Your task to perform on an android device: toggle show notifications on the lock screen Image 0: 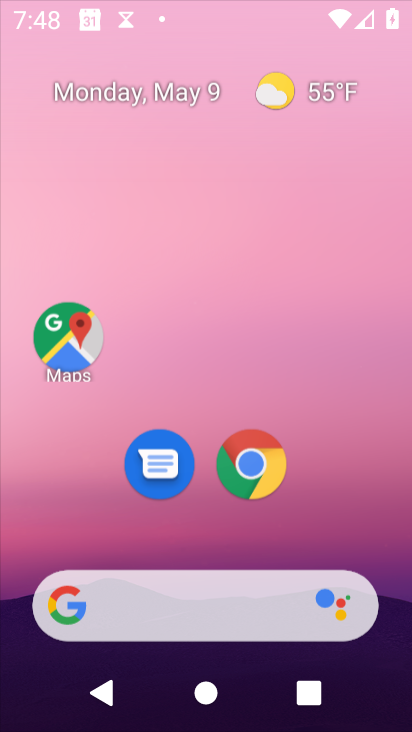
Step 0: click (177, 63)
Your task to perform on an android device: toggle show notifications on the lock screen Image 1: 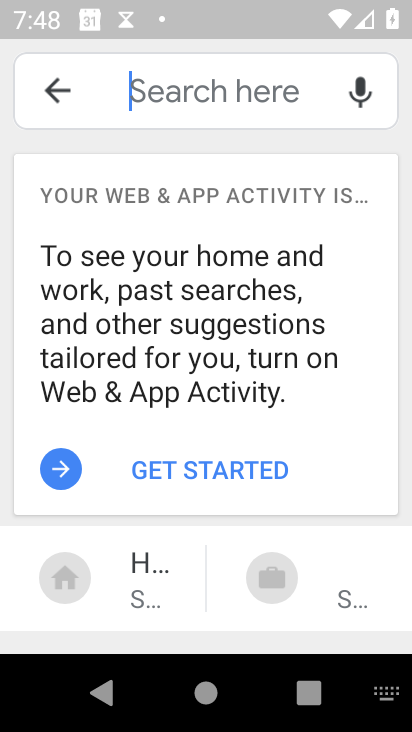
Step 1: click (48, 93)
Your task to perform on an android device: toggle show notifications on the lock screen Image 2: 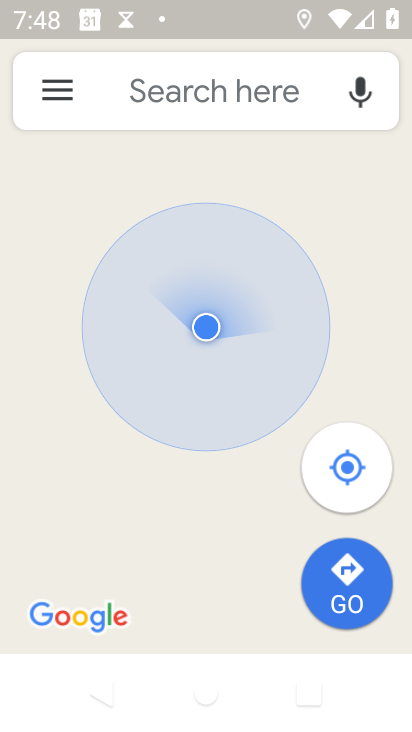
Step 2: press home button
Your task to perform on an android device: toggle show notifications on the lock screen Image 3: 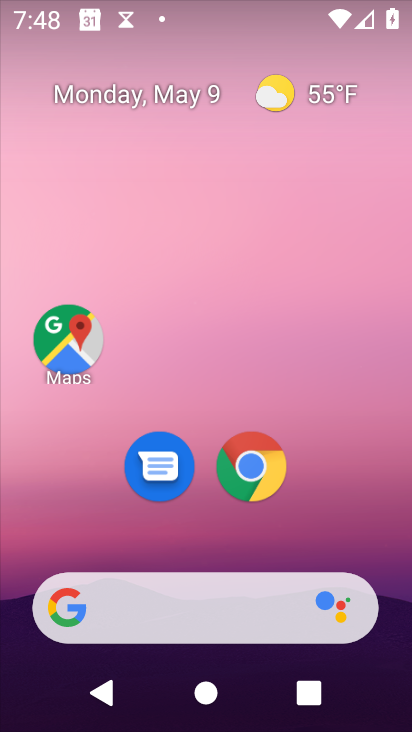
Step 3: drag from (367, 565) to (171, 6)
Your task to perform on an android device: toggle show notifications on the lock screen Image 4: 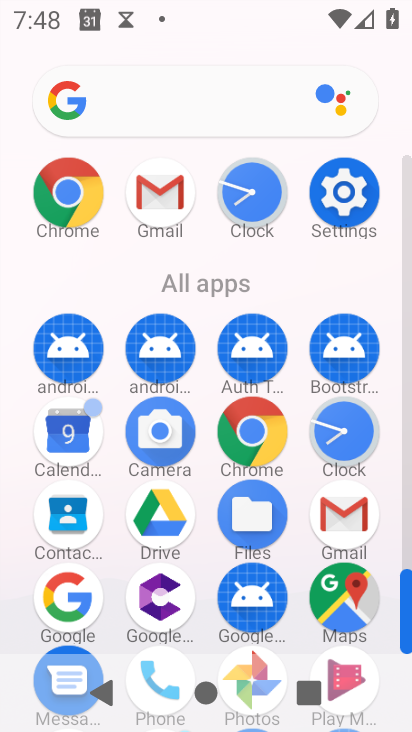
Step 4: click (334, 195)
Your task to perform on an android device: toggle show notifications on the lock screen Image 5: 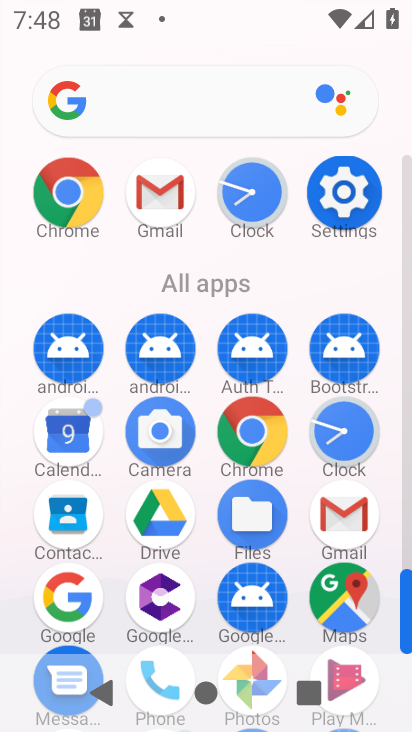
Step 5: click (334, 195)
Your task to perform on an android device: toggle show notifications on the lock screen Image 6: 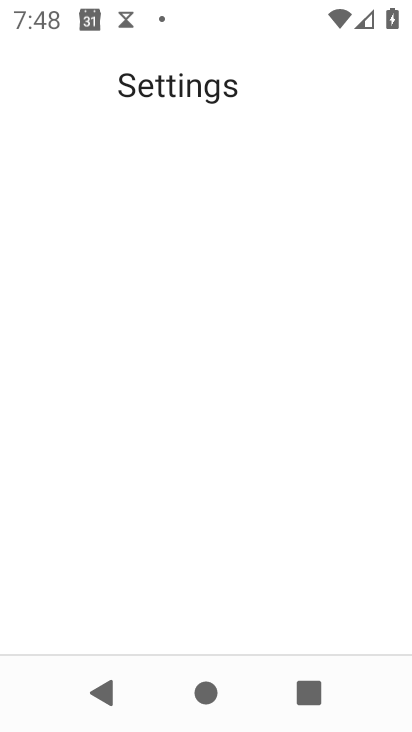
Step 6: click (335, 195)
Your task to perform on an android device: toggle show notifications on the lock screen Image 7: 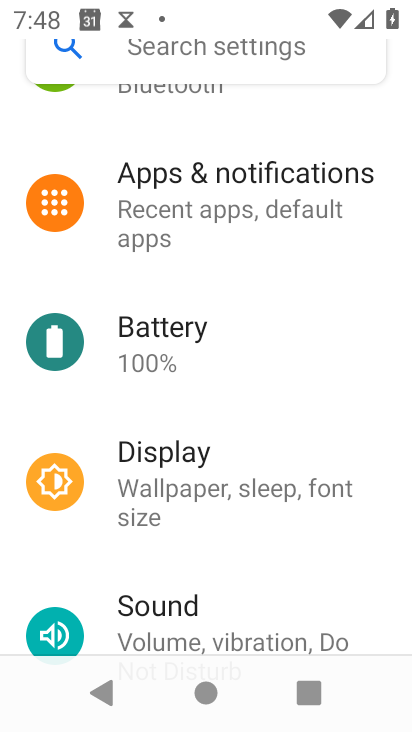
Step 7: click (188, 204)
Your task to perform on an android device: toggle show notifications on the lock screen Image 8: 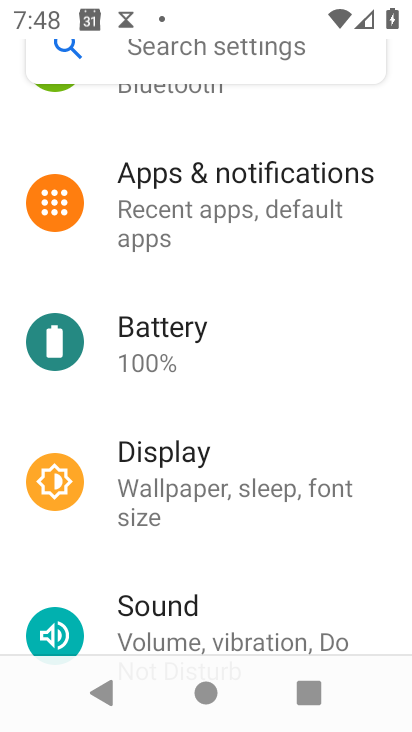
Step 8: click (188, 204)
Your task to perform on an android device: toggle show notifications on the lock screen Image 9: 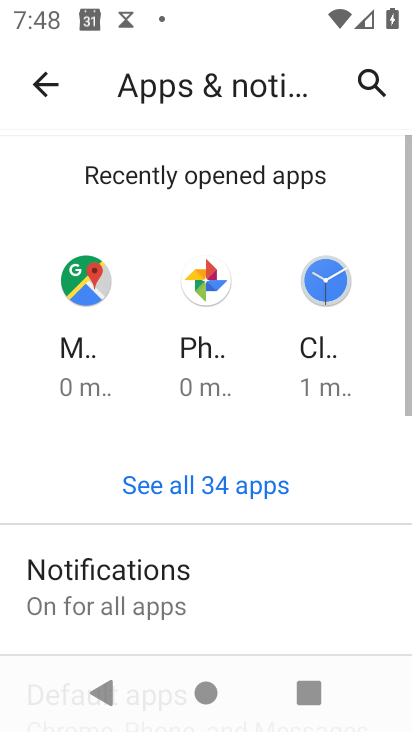
Step 9: click (112, 568)
Your task to perform on an android device: toggle show notifications on the lock screen Image 10: 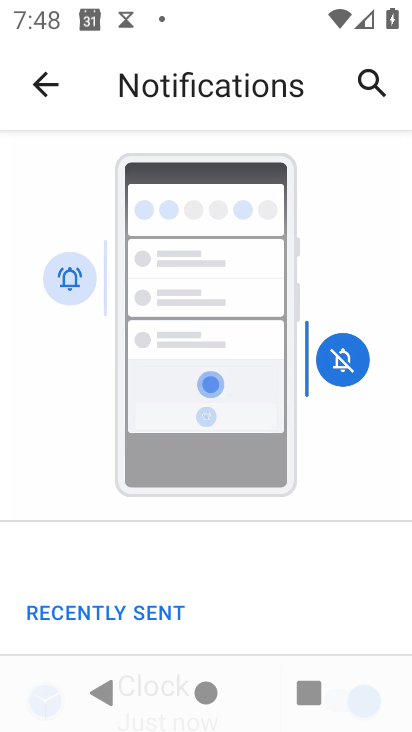
Step 10: drag from (238, 606) to (181, 94)
Your task to perform on an android device: toggle show notifications on the lock screen Image 11: 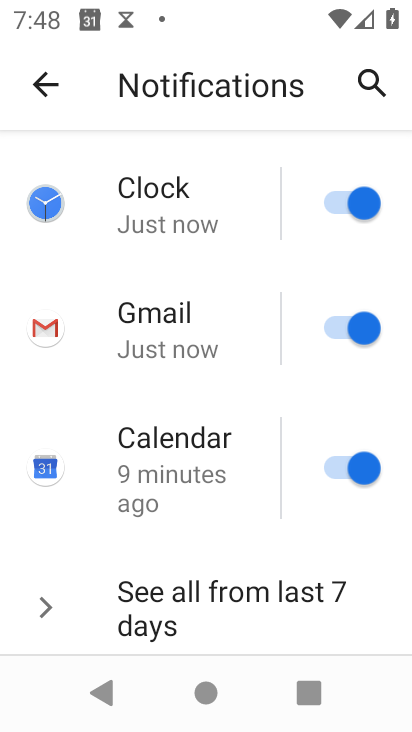
Step 11: drag from (172, 509) to (124, 114)
Your task to perform on an android device: toggle show notifications on the lock screen Image 12: 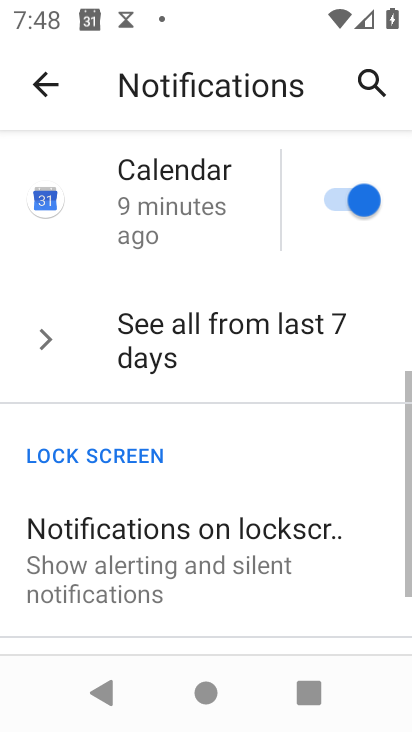
Step 12: drag from (198, 412) to (149, 107)
Your task to perform on an android device: toggle show notifications on the lock screen Image 13: 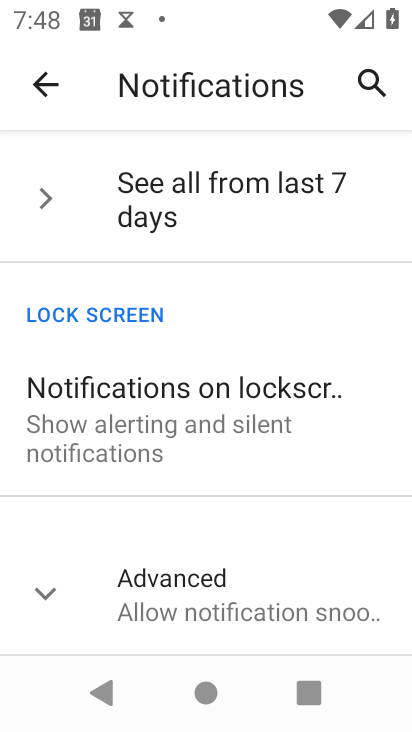
Step 13: click (170, 422)
Your task to perform on an android device: toggle show notifications on the lock screen Image 14: 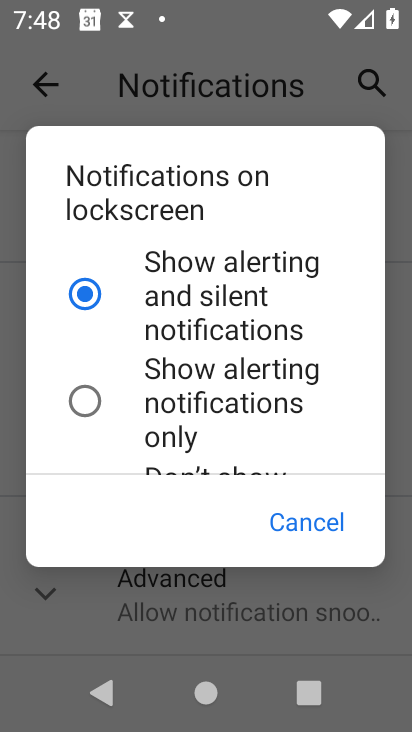
Step 14: click (90, 397)
Your task to perform on an android device: toggle show notifications on the lock screen Image 15: 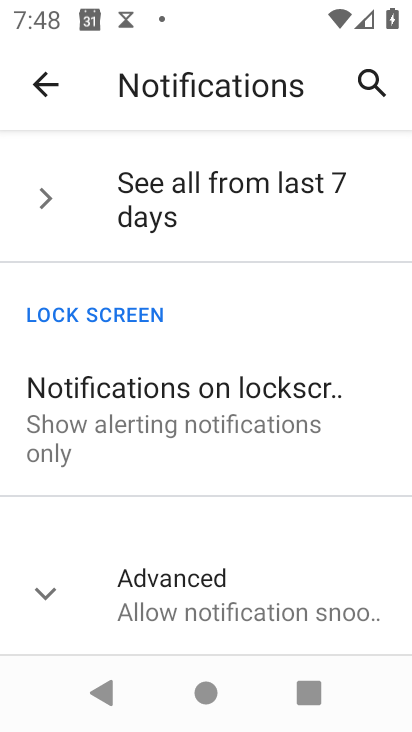
Step 15: task complete